Your task to perform on an android device: Open Youtube and go to "Your channel" Image 0: 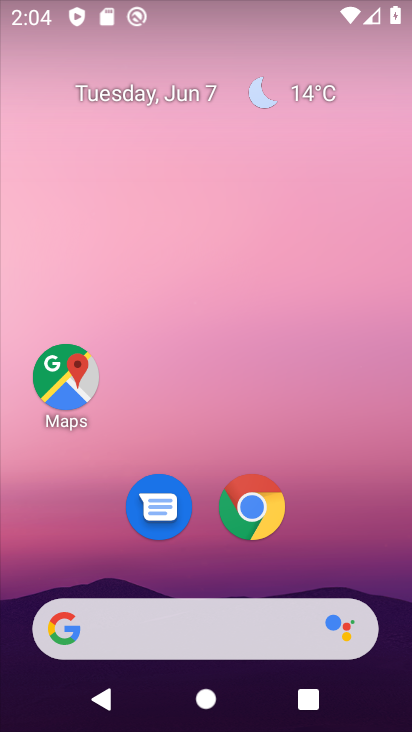
Step 0: drag from (337, 541) to (324, 97)
Your task to perform on an android device: Open Youtube and go to "Your channel" Image 1: 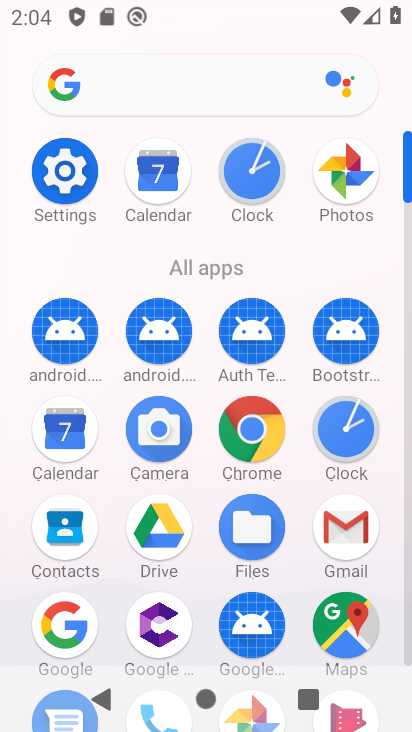
Step 1: drag from (293, 574) to (294, 269)
Your task to perform on an android device: Open Youtube and go to "Your channel" Image 2: 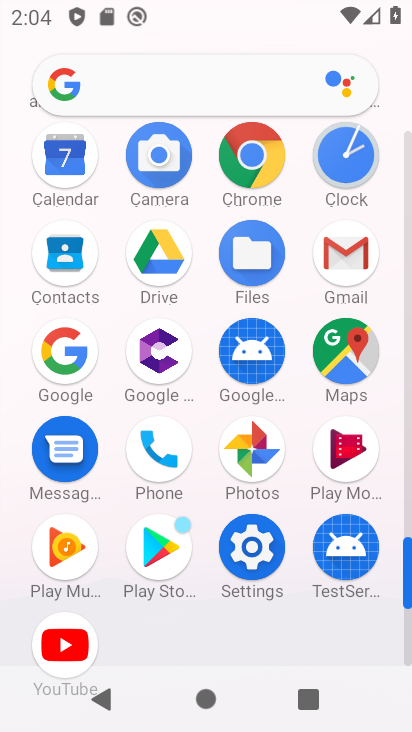
Step 2: click (48, 653)
Your task to perform on an android device: Open Youtube and go to "Your channel" Image 3: 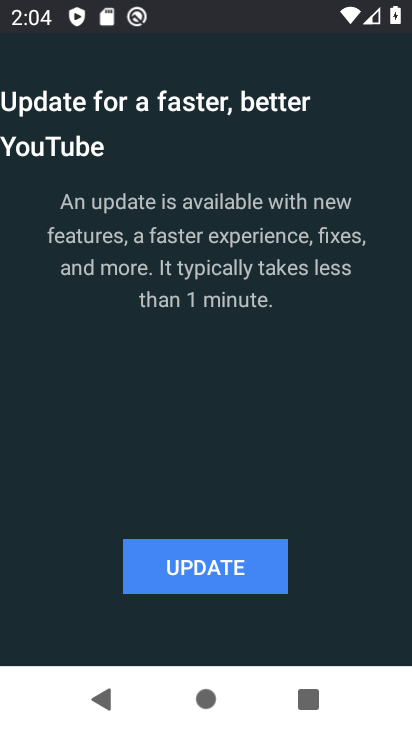
Step 3: click (184, 555)
Your task to perform on an android device: Open Youtube and go to "Your channel" Image 4: 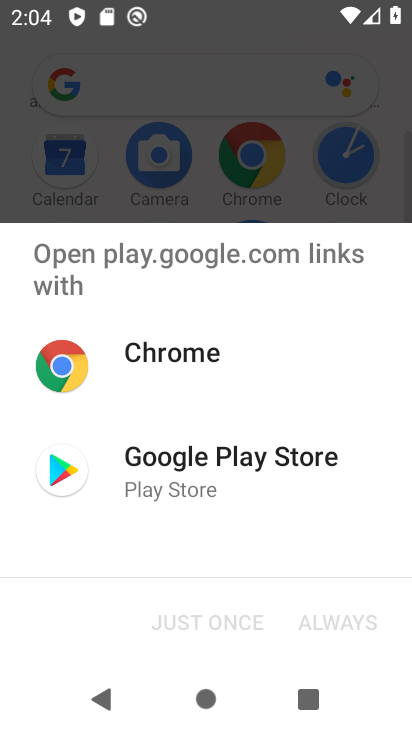
Step 4: click (242, 477)
Your task to perform on an android device: Open Youtube and go to "Your channel" Image 5: 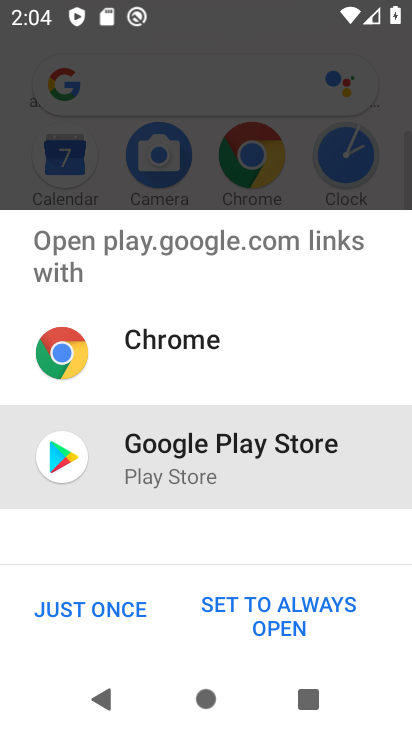
Step 5: click (112, 602)
Your task to perform on an android device: Open Youtube and go to "Your channel" Image 6: 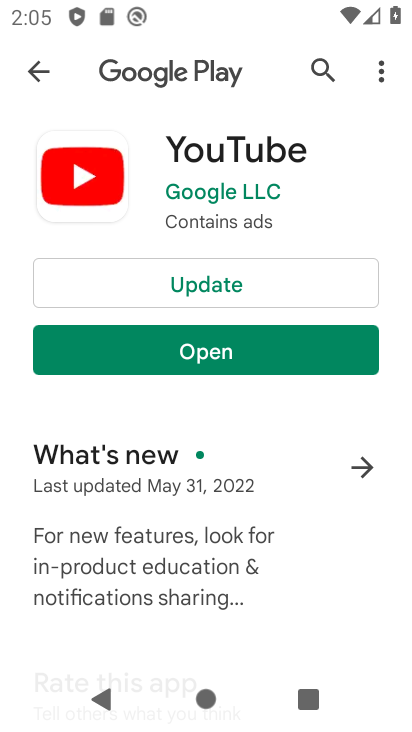
Step 6: click (232, 286)
Your task to perform on an android device: Open Youtube and go to "Your channel" Image 7: 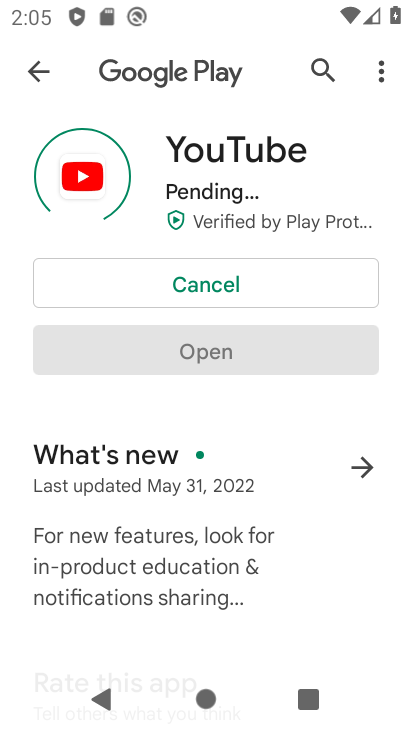
Step 7: task complete